Your task to perform on an android device: search for starred emails in the gmail app Image 0: 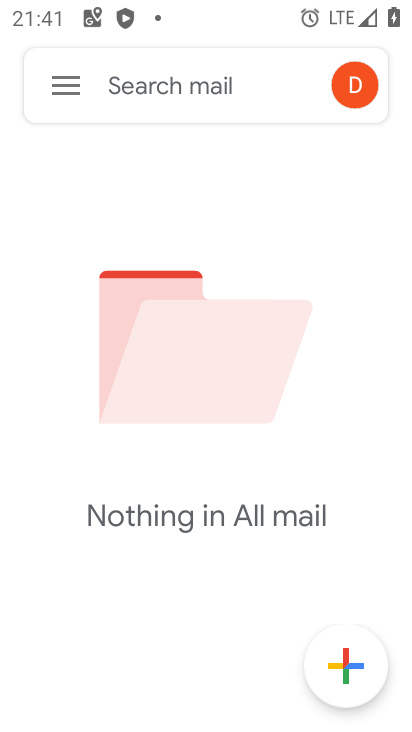
Step 0: press home button
Your task to perform on an android device: search for starred emails in the gmail app Image 1: 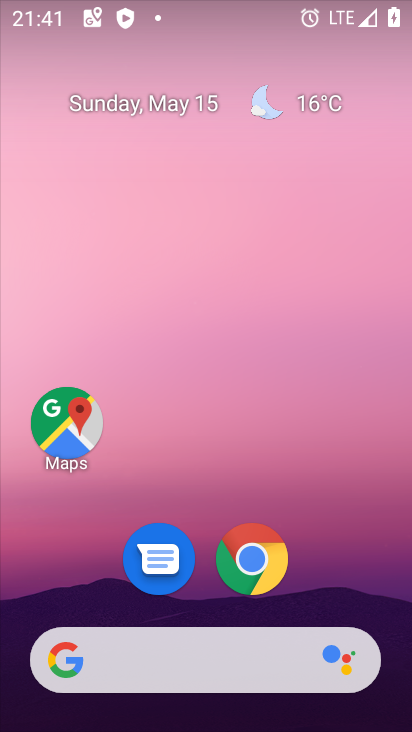
Step 1: drag from (341, 532) to (197, 50)
Your task to perform on an android device: search for starred emails in the gmail app Image 2: 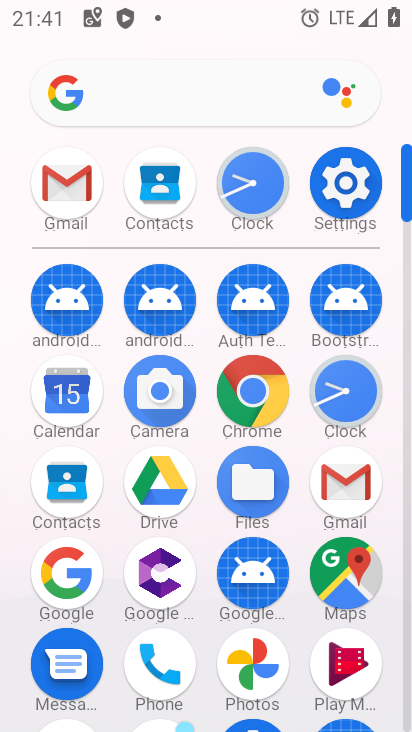
Step 2: click (332, 493)
Your task to perform on an android device: search for starred emails in the gmail app Image 3: 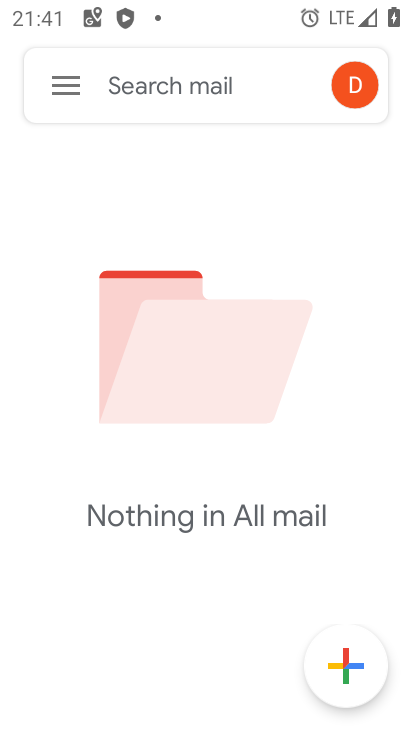
Step 3: click (68, 85)
Your task to perform on an android device: search for starred emails in the gmail app Image 4: 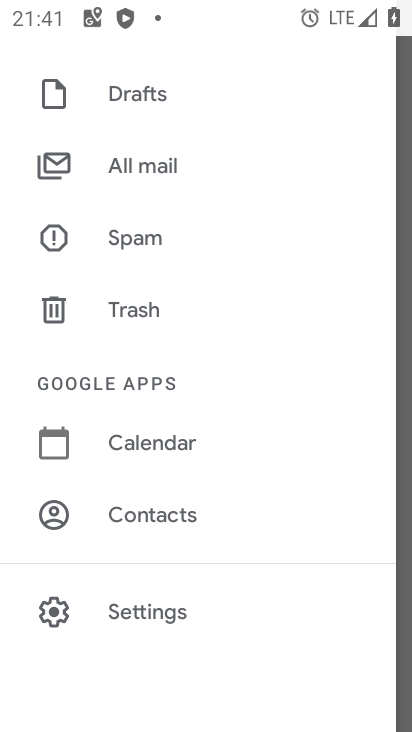
Step 4: drag from (201, 237) to (254, 502)
Your task to perform on an android device: search for starred emails in the gmail app Image 5: 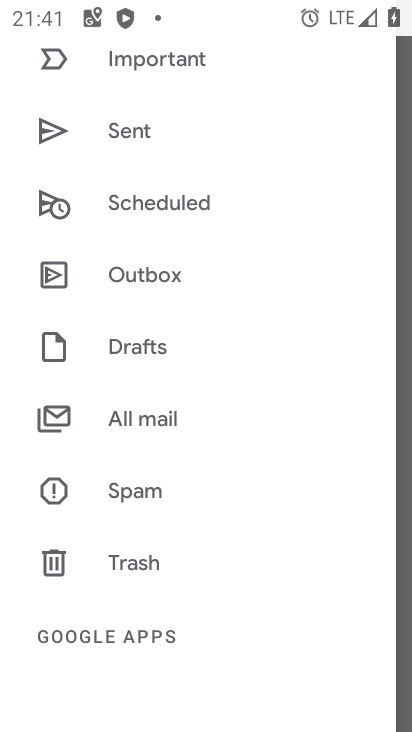
Step 5: drag from (206, 248) to (264, 683)
Your task to perform on an android device: search for starred emails in the gmail app Image 6: 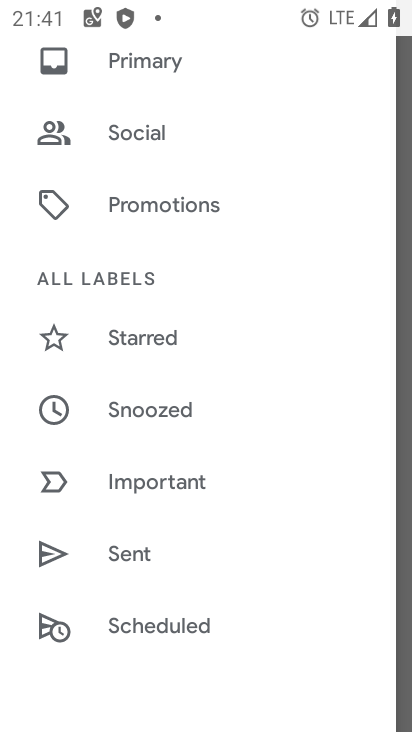
Step 6: click (155, 340)
Your task to perform on an android device: search for starred emails in the gmail app Image 7: 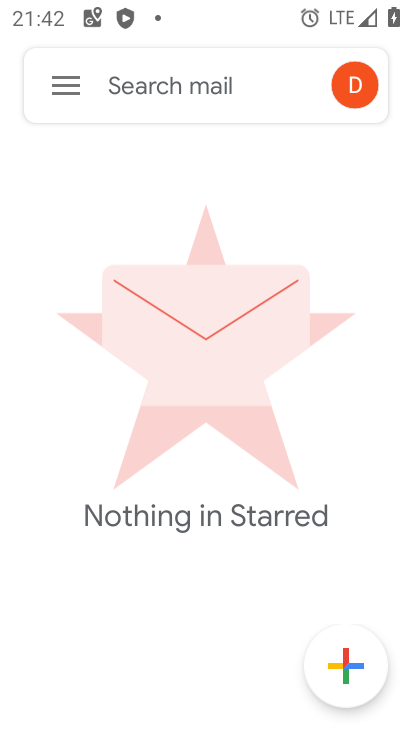
Step 7: task complete